Your task to perform on an android device: Open the calendar app, open the side menu, and click the "Day" option Image 0: 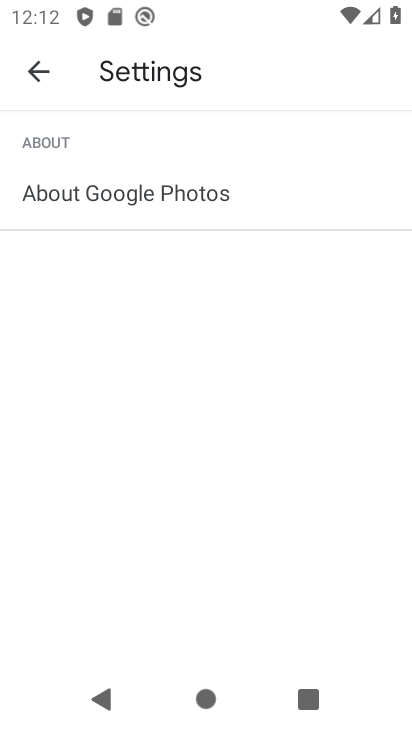
Step 0: press home button
Your task to perform on an android device: Open the calendar app, open the side menu, and click the "Day" option Image 1: 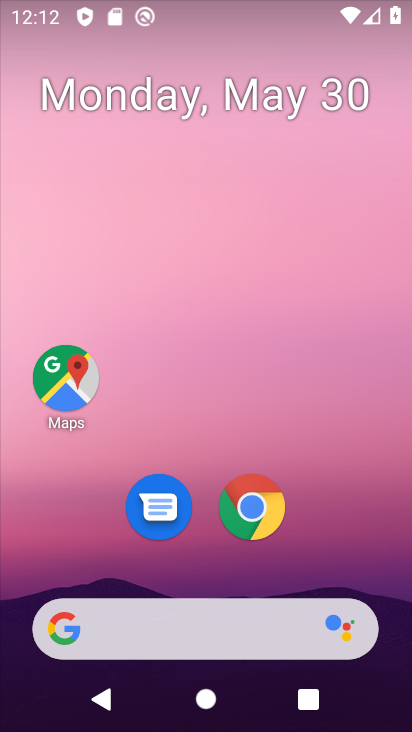
Step 1: drag from (289, 586) to (302, 158)
Your task to perform on an android device: Open the calendar app, open the side menu, and click the "Day" option Image 2: 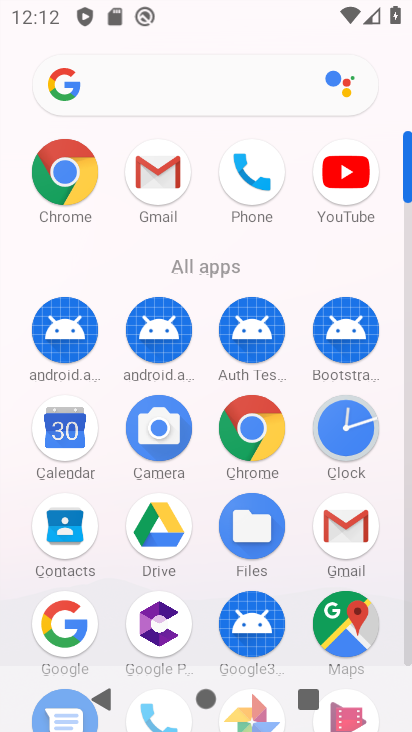
Step 2: click (64, 422)
Your task to perform on an android device: Open the calendar app, open the side menu, and click the "Day" option Image 3: 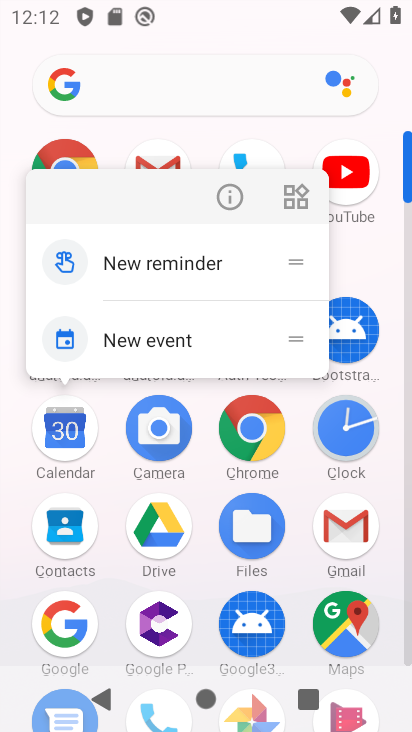
Step 3: click (70, 426)
Your task to perform on an android device: Open the calendar app, open the side menu, and click the "Day" option Image 4: 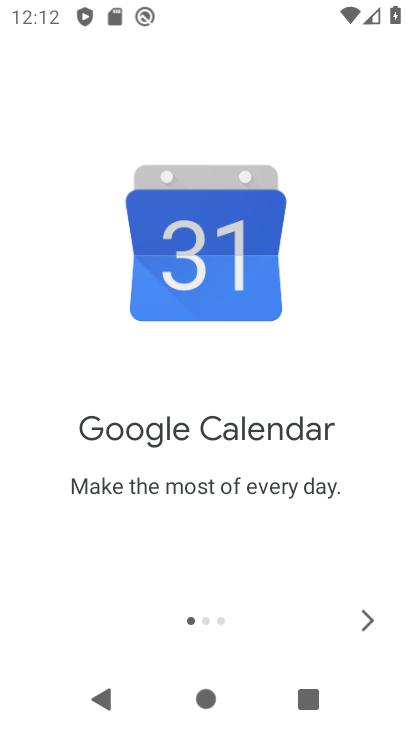
Step 4: click (372, 611)
Your task to perform on an android device: Open the calendar app, open the side menu, and click the "Day" option Image 5: 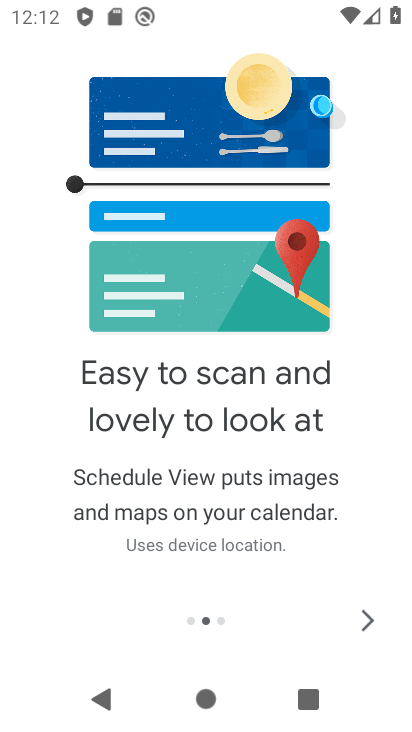
Step 5: click (369, 609)
Your task to perform on an android device: Open the calendar app, open the side menu, and click the "Day" option Image 6: 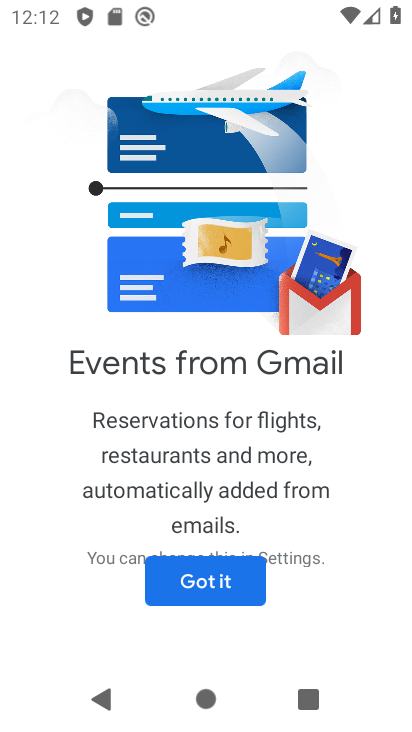
Step 6: click (218, 584)
Your task to perform on an android device: Open the calendar app, open the side menu, and click the "Day" option Image 7: 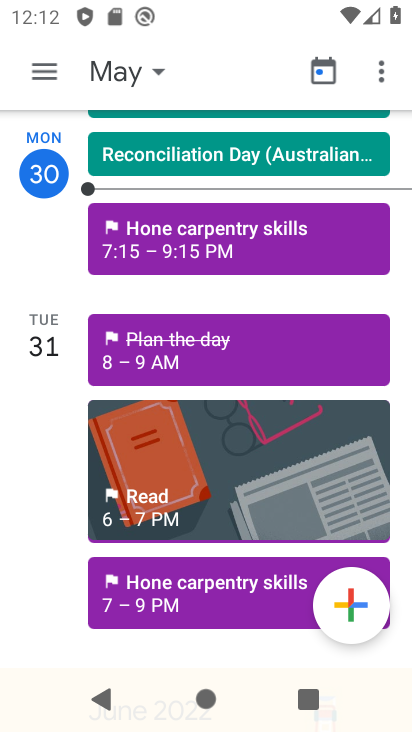
Step 7: click (34, 65)
Your task to perform on an android device: Open the calendar app, open the side menu, and click the "Day" option Image 8: 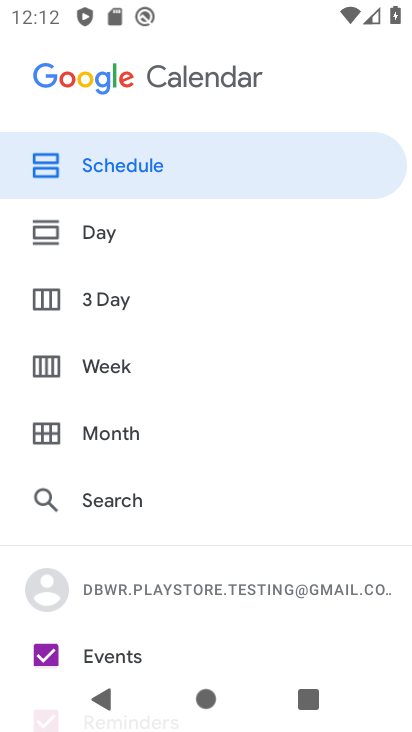
Step 8: click (69, 231)
Your task to perform on an android device: Open the calendar app, open the side menu, and click the "Day" option Image 9: 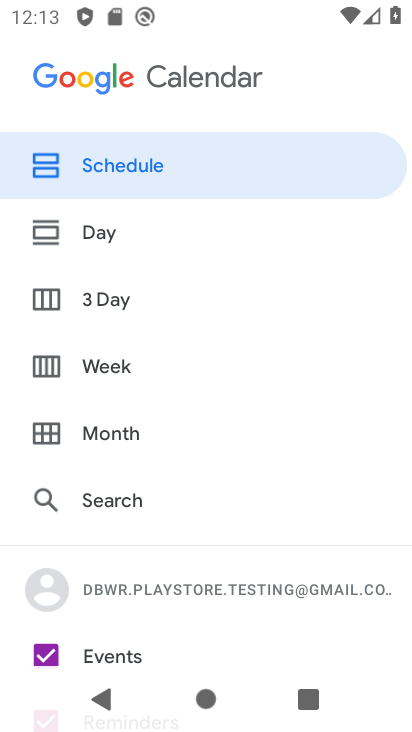
Step 9: click (99, 214)
Your task to perform on an android device: Open the calendar app, open the side menu, and click the "Day" option Image 10: 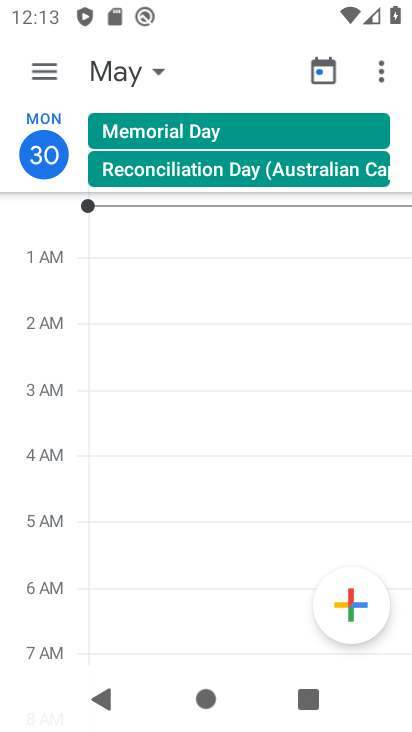
Step 10: task complete